Your task to perform on an android device: remove spam from my inbox in the gmail app Image 0: 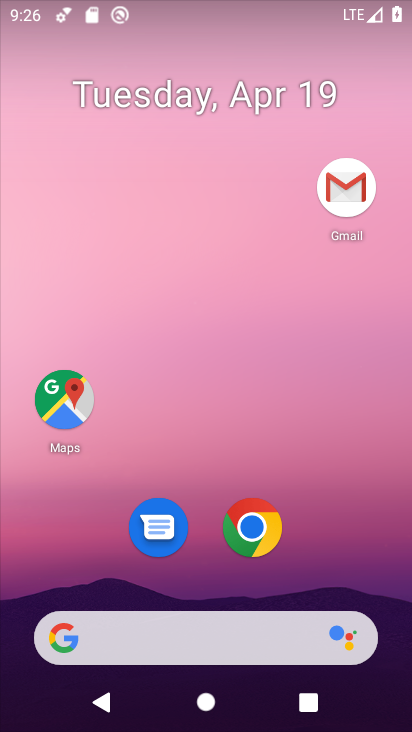
Step 0: drag from (364, 555) to (381, 102)
Your task to perform on an android device: remove spam from my inbox in the gmail app Image 1: 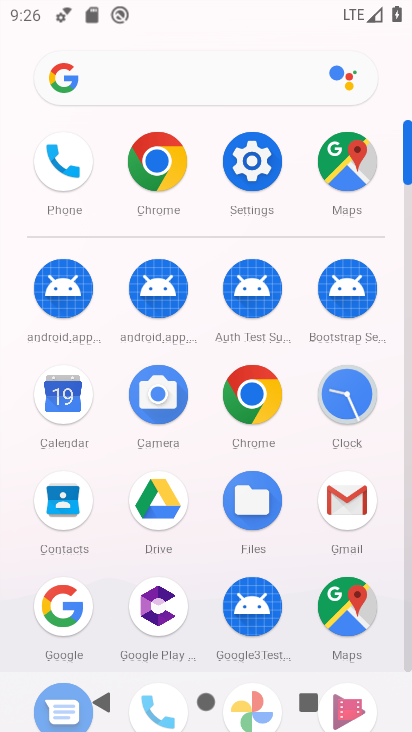
Step 1: click (335, 499)
Your task to perform on an android device: remove spam from my inbox in the gmail app Image 2: 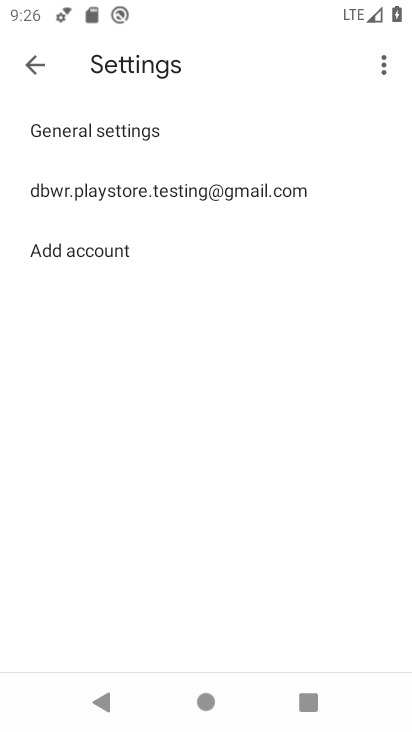
Step 2: click (221, 184)
Your task to perform on an android device: remove spam from my inbox in the gmail app Image 3: 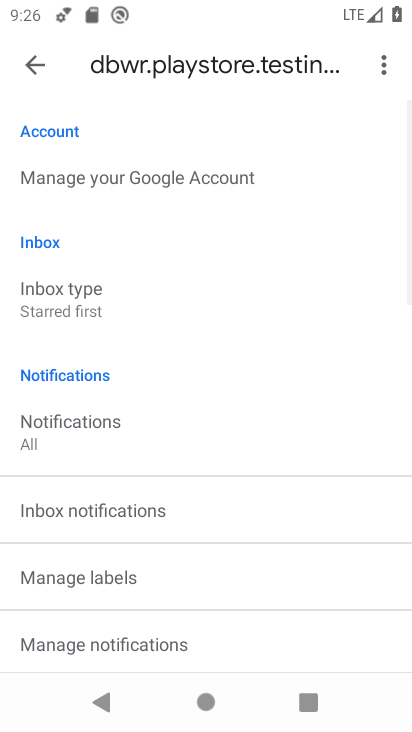
Step 3: click (17, 67)
Your task to perform on an android device: remove spam from my inbox in the gmail app Image 4: 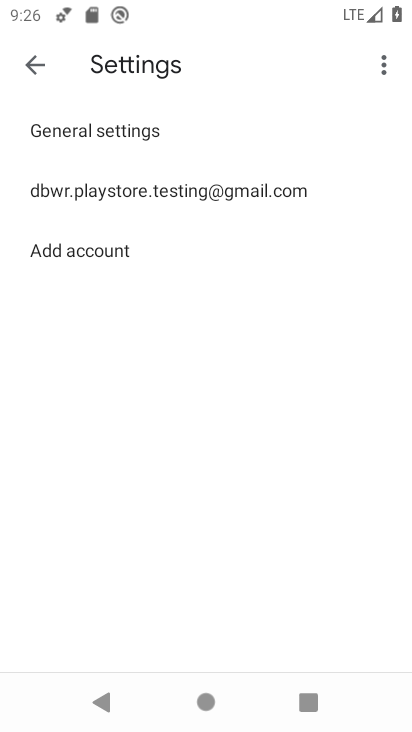
Step 4: click (17, 67)
Your task to perform on an android device: remove spam from my inbox in the gmail app Image 5: 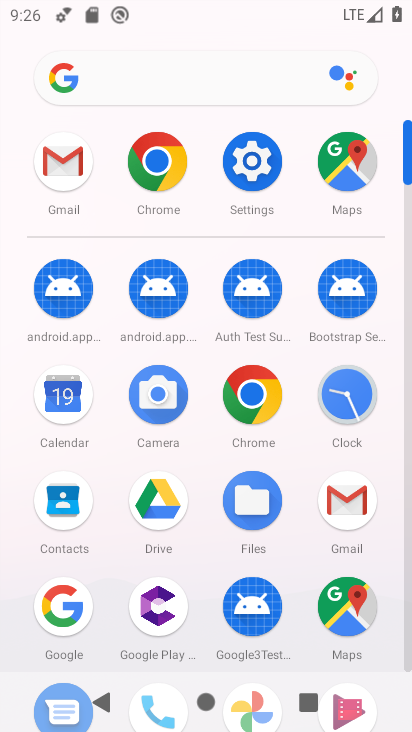
Step 5: click (354, 504)
Your task to perform on an android device: remove spam from my inbox in the gmail app Image 6: 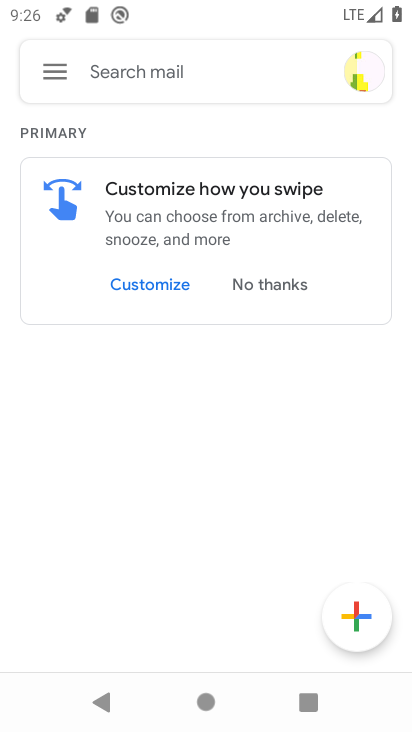
Step 6: click (54, 71)
Your task to perform on an android device: remove spam from my inbox in the gmail app Image 7: 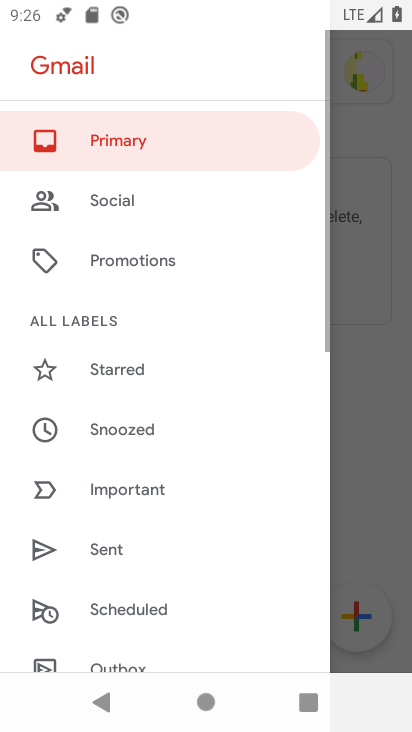
Step 7: drag from (215, 640) to (263, 244)
Your task to perform on an android device: remove spam from my inbox in the gmail app Image 8: 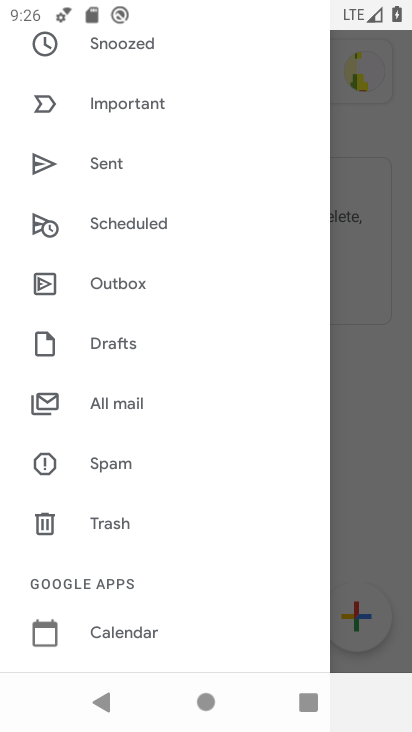
Step 8: drag from (182, 589) to (263, 240)
Your task to perform on an android device: remove spam from my inbox in the gmail app Image 9: 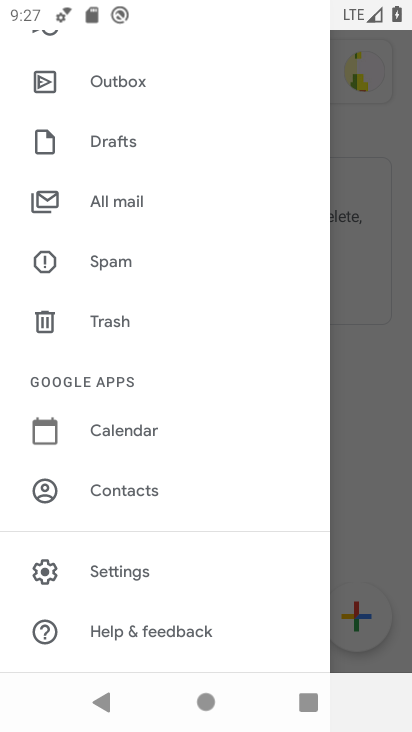
Step 9: click (130, 261)
Your task to perform on an android device: remove spam from my inbox in the gmail app Image 10: 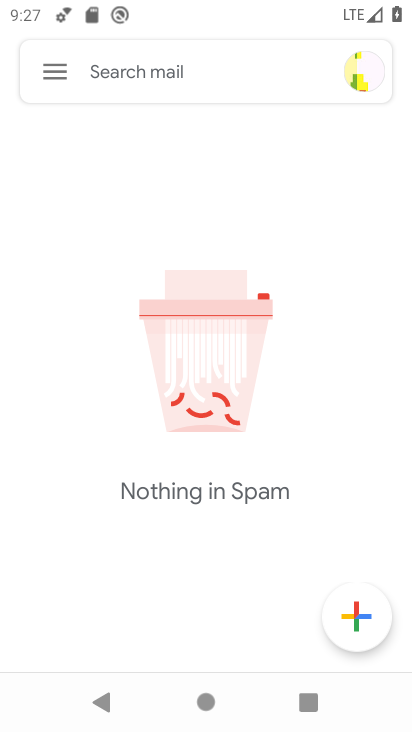
Step 10: task complete